Your task to perform on an android device: toggle pop-ups in chrome Image 0: 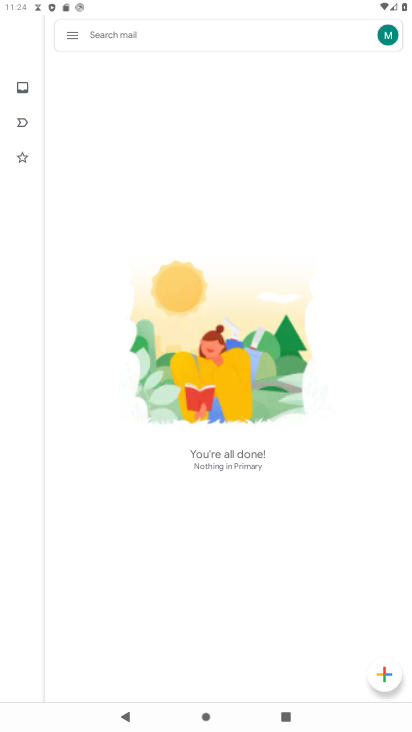
Step 0: press home button
Your task to perform on an android device: toggle pop-ups in chrome Image 1: 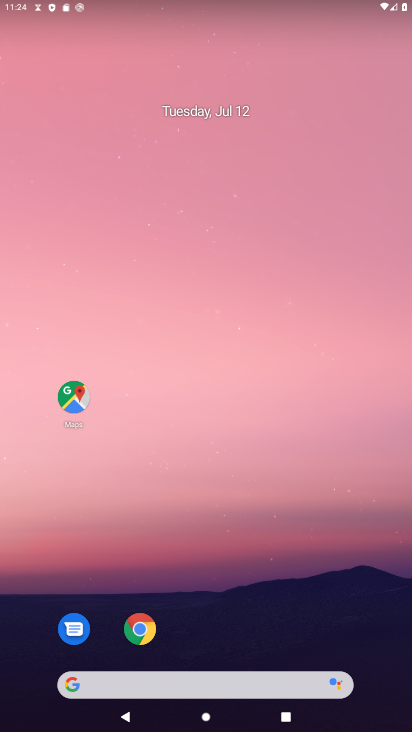
Step 1: drag from (270, 533) to (379, 19)
Your task to perform on an android device: toggle pop-ups in chrome Image 2: 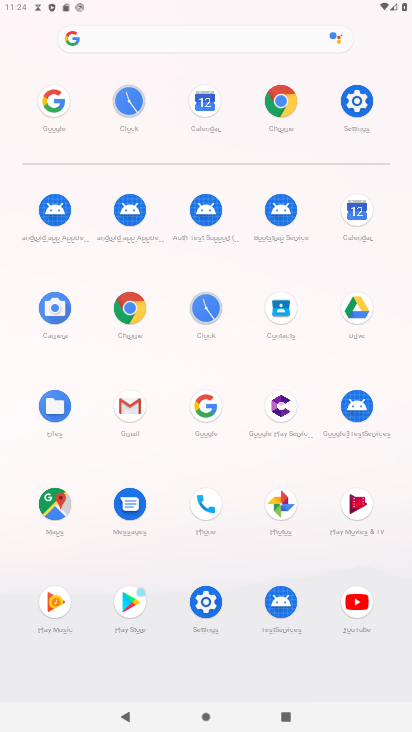
Step 2: click (287, 109)
Your task to perform on an android device: toggle pop-ups in chrome Image 3: 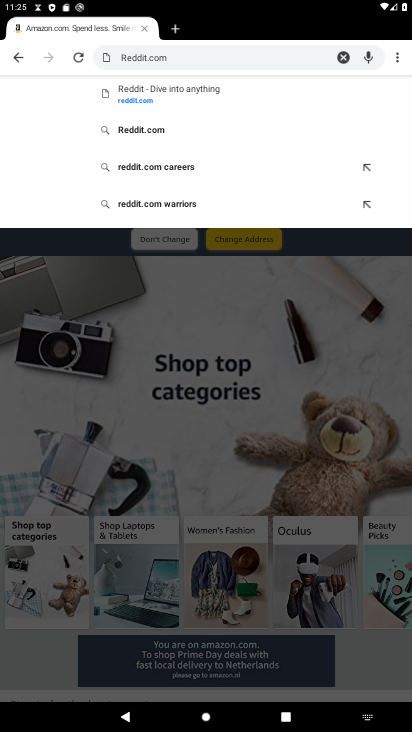
Step 3: drag from (406, 61) to (281, 377)
Your task to perform on an android device: toggle pop-ups in chrome Image 4: 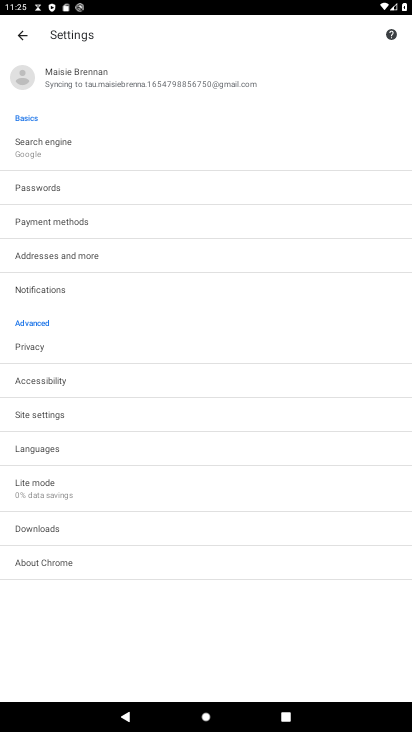
Step 4: click (24, 416)
Your task to perform on an android device: toggle pop-ups in chrome Image 5: 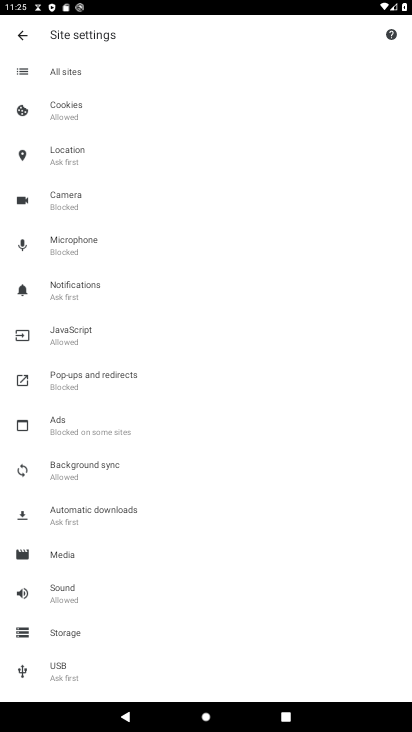
Step 5: click (76, 384)
Your task to perform on an android device: toggle pop-ups in chrome Image 6: 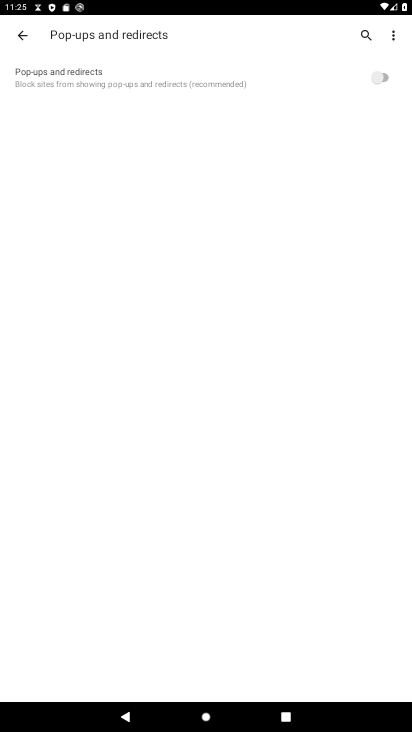
Step 6: click (371, 74)
Your task to perform on an android device: toggle pop-ups in chrome Image 7: 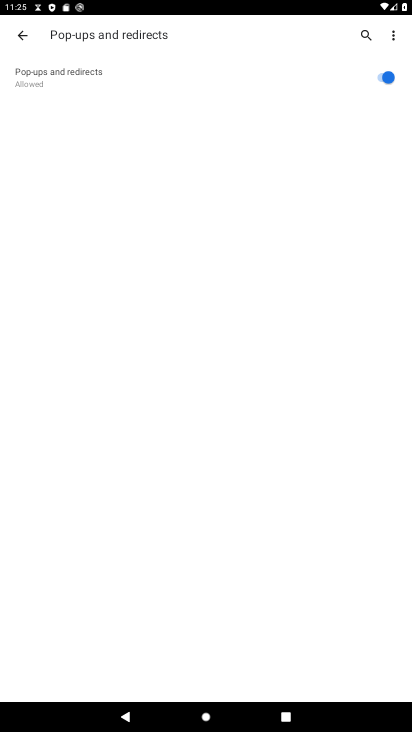
Step 7: task complete